Your task to perform on an android device: toggle location history Image 0: 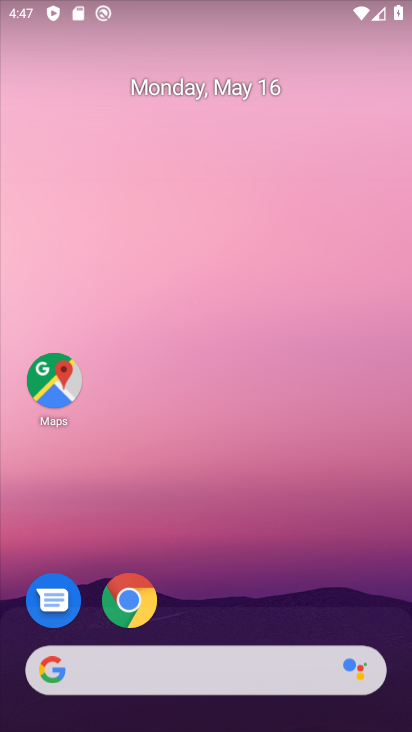
Step 0: drag from (203, 634) to (349, 32)
Your task to perform on an android device: toggle location history Image 1: 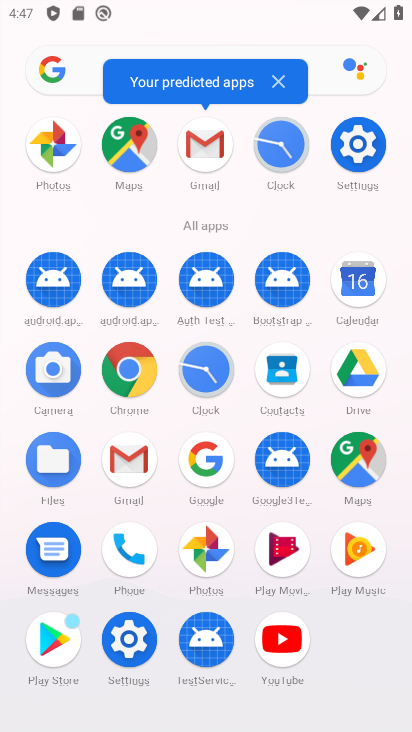
Step 1: click (115, 667)
Your task to perform on an android device: toggle location history Image 2: 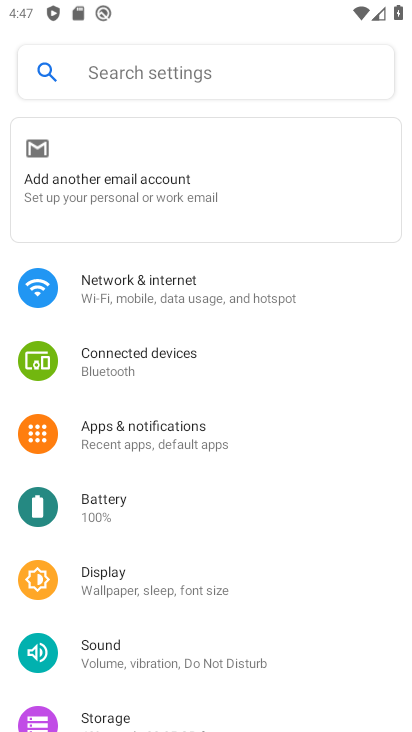
Step 2: drag from (188, 592) to (121, 120)
Your task to perform on an android device: toggle location history Image 3: 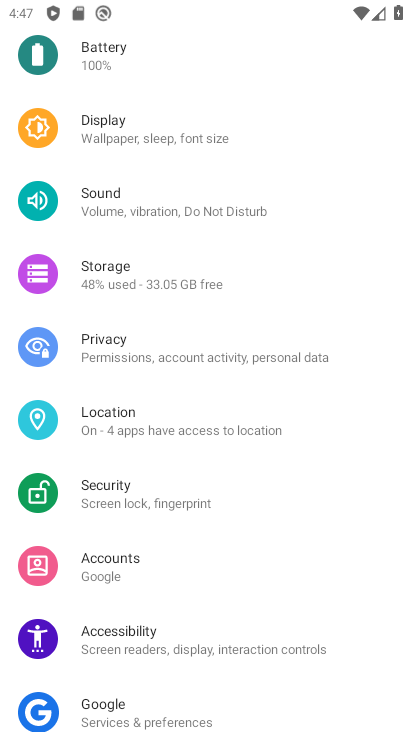
Step 3: click (101, 416)
Your task to perform on an android device: toggle location history Image 4: 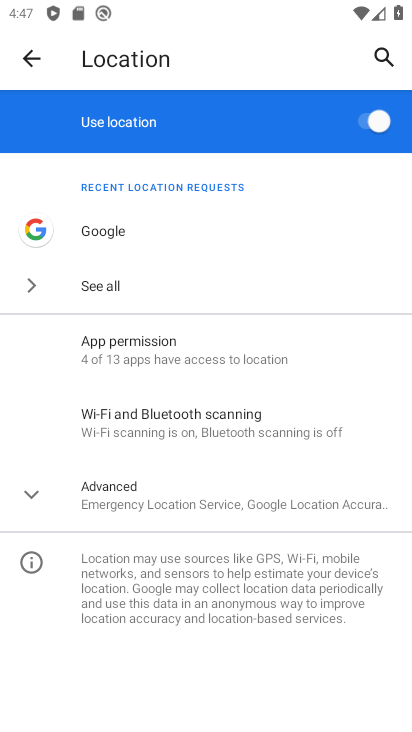
Step 4: click (164, 516)
Your task to perform on an android device: toggle location history Image 5: 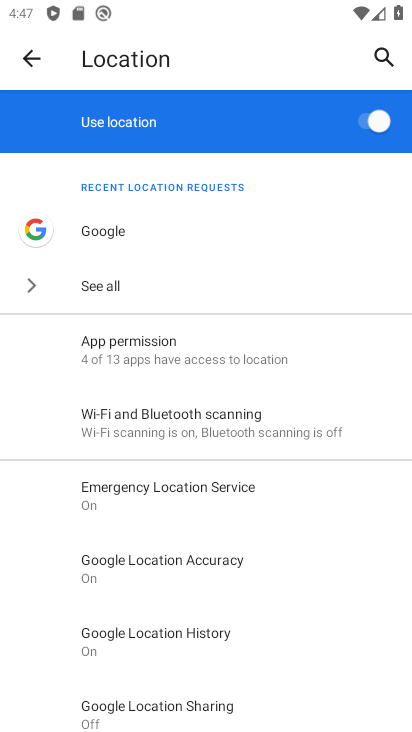
Step 5: click (189, 607)
Your task to perform on an android device: toggle location history Image 6: 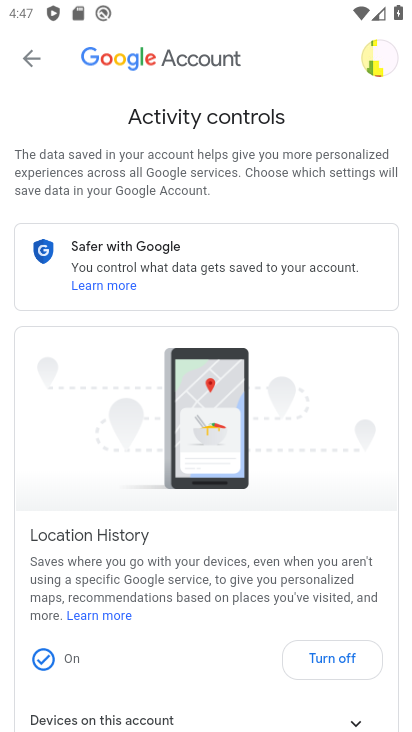
Step 6: click (322, 663)
Your task to perform on an android device: toggle location history Image 7: 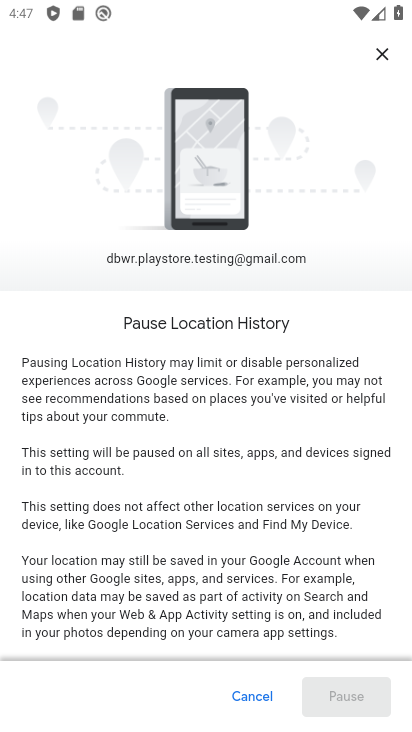
Step 7: drag from (320, 654) to (245, 66)
Your task to perform on an android device: toggle location history Image 8: 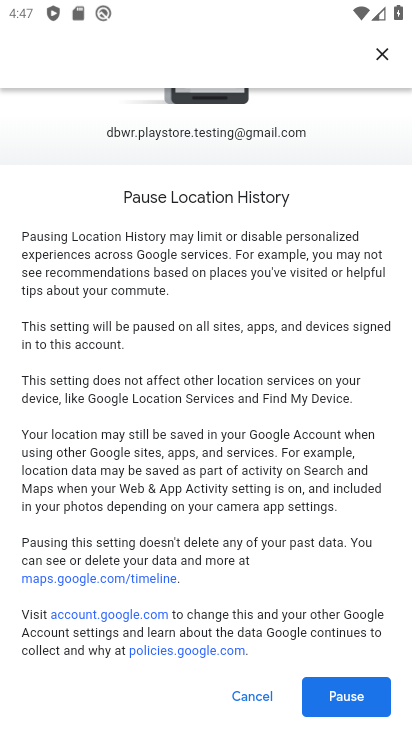
Step 8: click (367, 690)
Your task to perform on an android device: toggle location history Image 9: 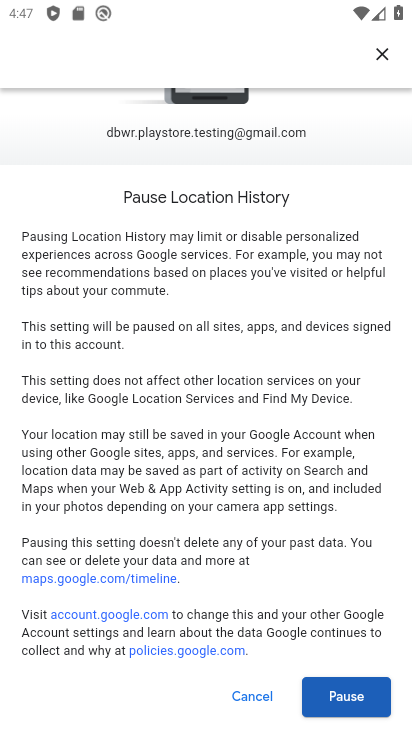
Step 9: click (364, 692)
Your task to perform on an android device: toggle location history Image 10: 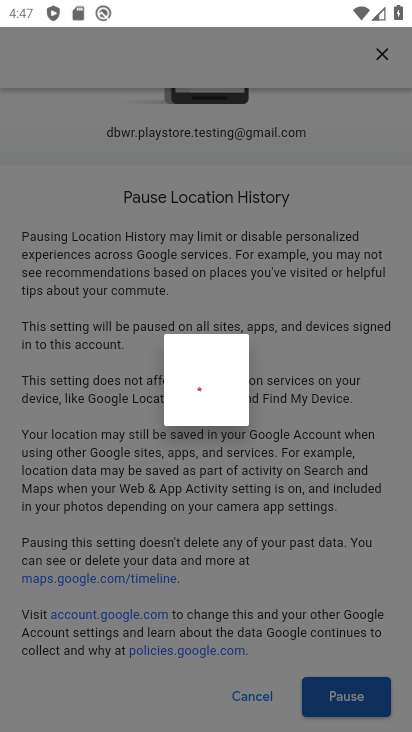
Step 10: click (363, 693)
Your task to perform on an android device: toggle location history Image 11: 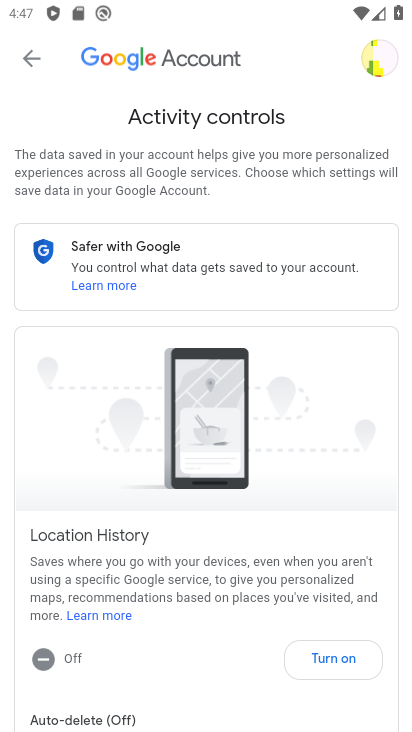
Step 11: click (361, 693)
Your task to perform on an android device: toggle location history Image 12: 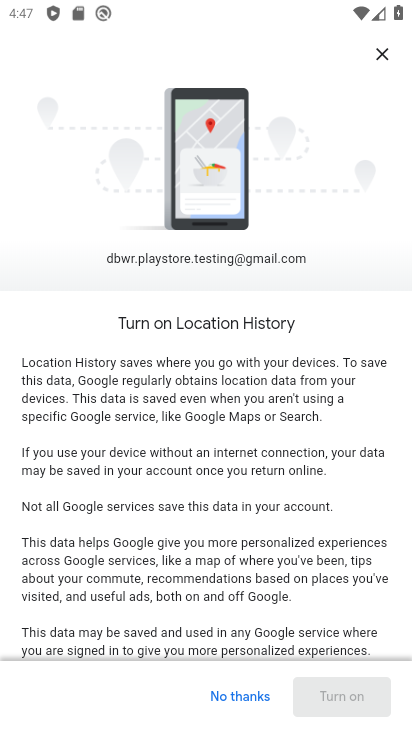
Step 12: drag from (307, 605) to (231, 9)
Your task to perform on an android device: toggle location history Image 13: 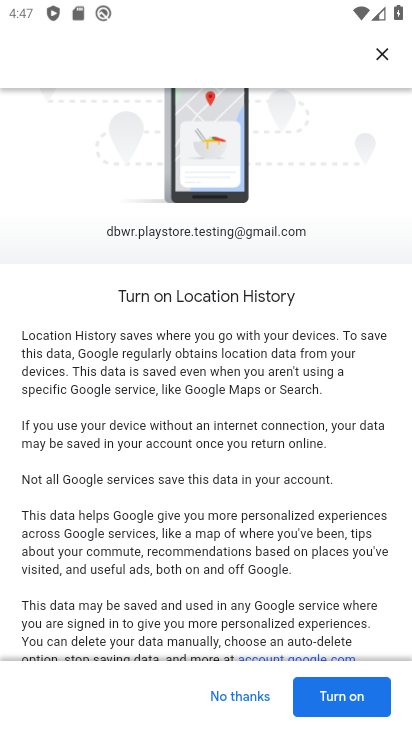
Step 13: click (340, 680)
Your task to perform on an android device: toggle location history Image 14: 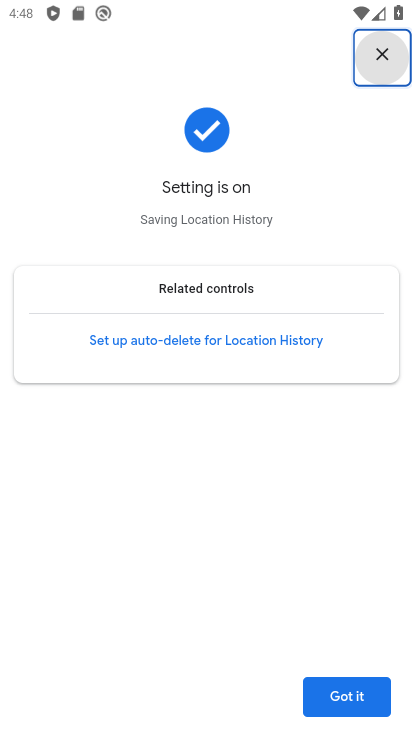
Step 14: click (345, 704)
Your task to perform on an android device: toggle location history Image 15: 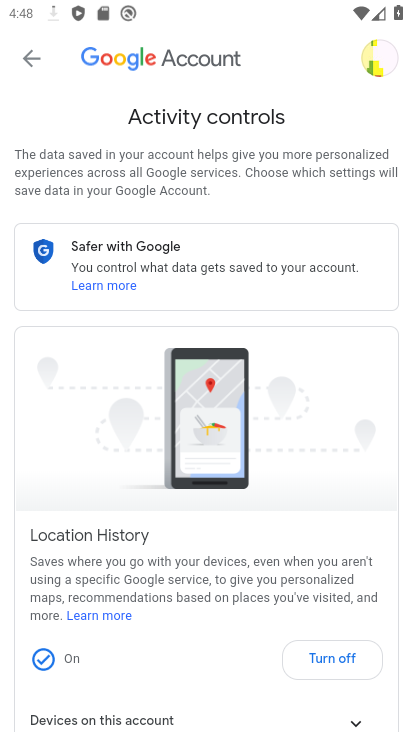
Step 15: task complete